Your task to perform on an android device: clear history in the chrome app Image 0: 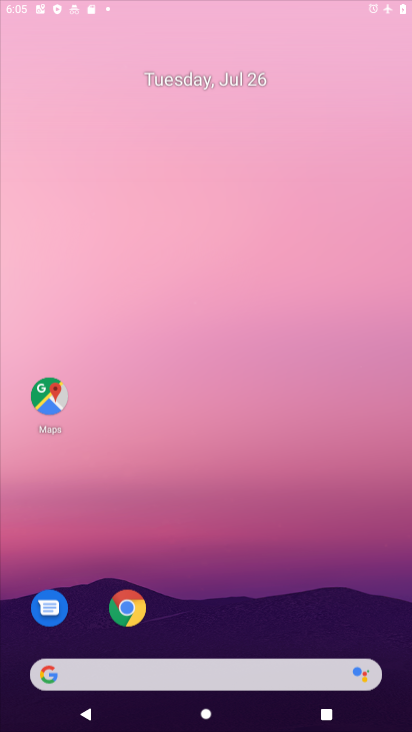
Step 0: press home button
Your task to perform on an android device: clear history in the chrome app Image 1: 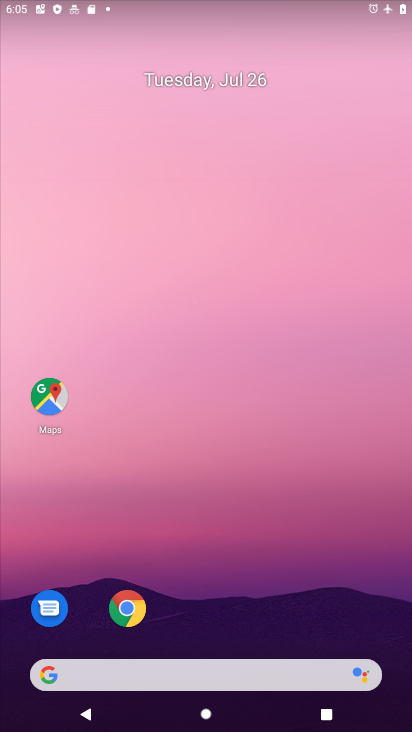
Step 1: drag from (284, 645) to (303, 164)
Your task to perform on an android device: clear history in the chrome app Image 2: 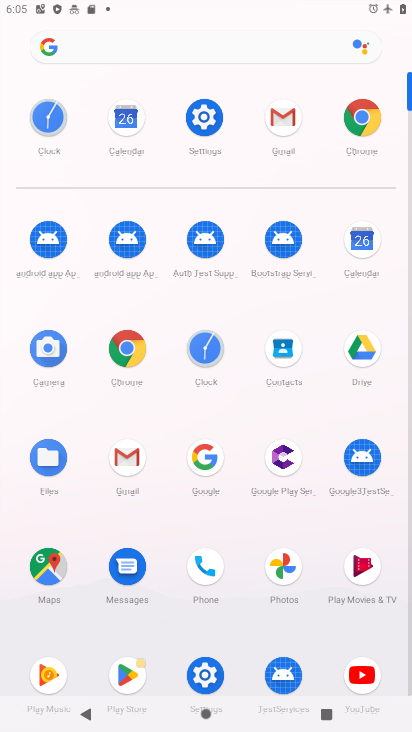
Step 2: click (360, 120)
Your task to perform on an android device: clear history in the chrome app Image 3: 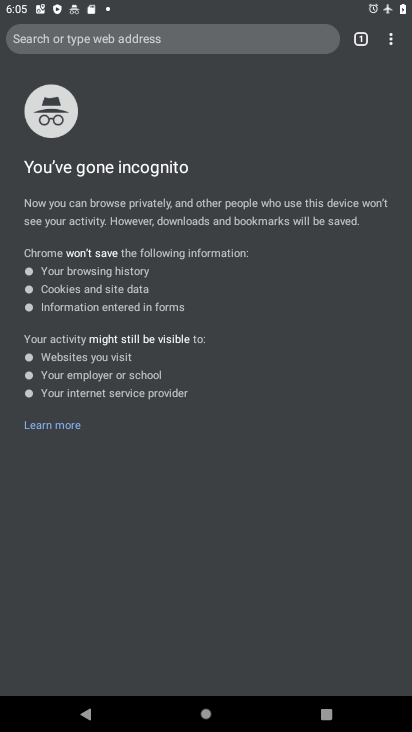
Step 3: drag from (383, 46) to (239, 184)
Your task to perform on an android device: clear history in the chrome app Image 4: 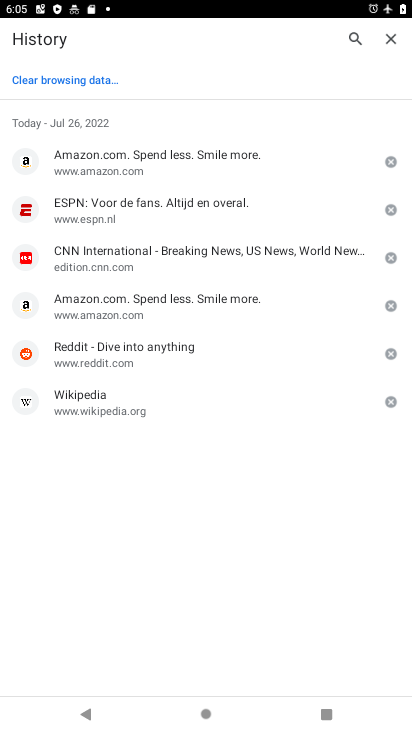
Step 4: click (63, 88)
Your task to perform on an android device: clear history in the chrome app Image 5: 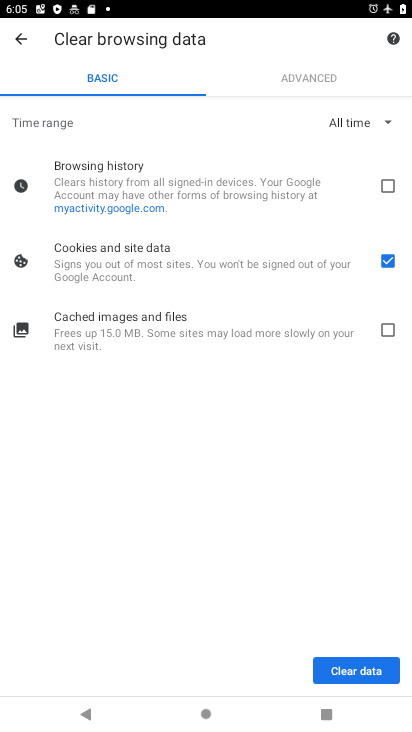
Step 5: click (386, 183)
Your task to perform on an android device: clear history in the chrome app Image 6: 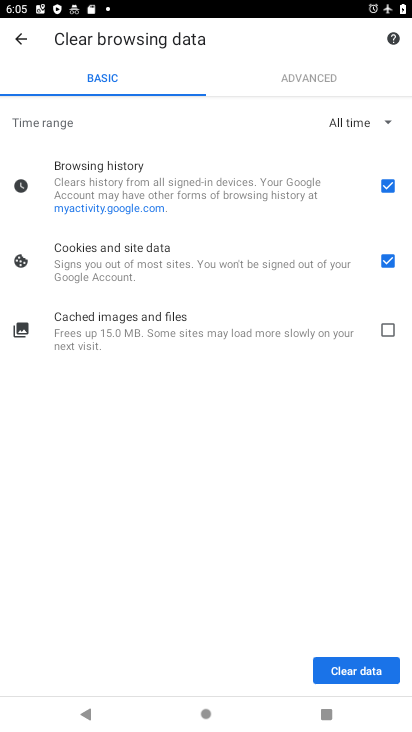
Step 6: click (387, 260)
Your task to perform on an android device: clear history in the chrome app Image 7: 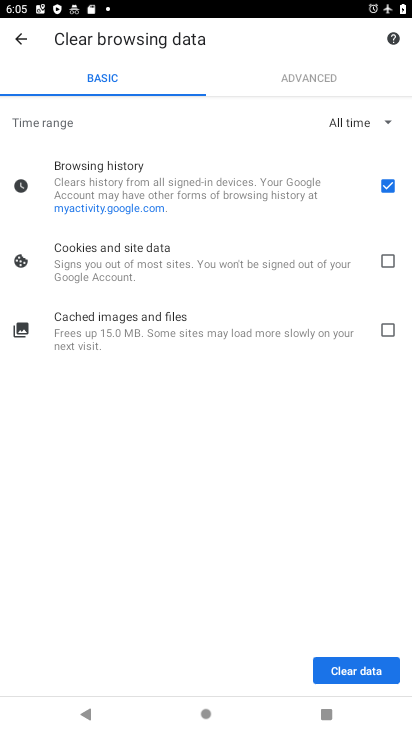
Step 7: click (360, 672)
Your task to perform on an android device: clear history in the chrome app Image 8: 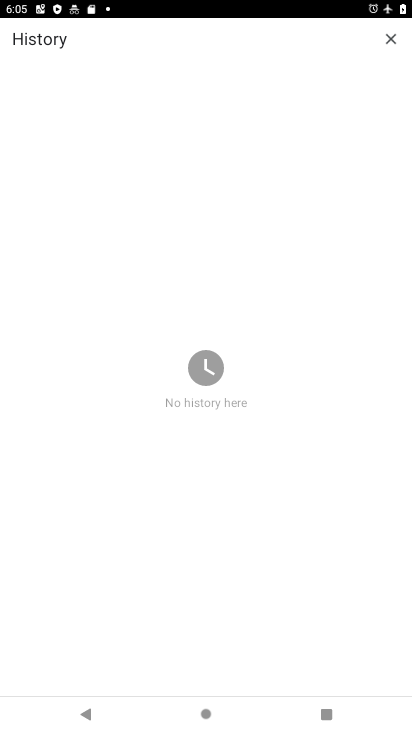
Step 8: task complete